Your task to perform on an android device: stop showing notifications on the lock screen Image 0: 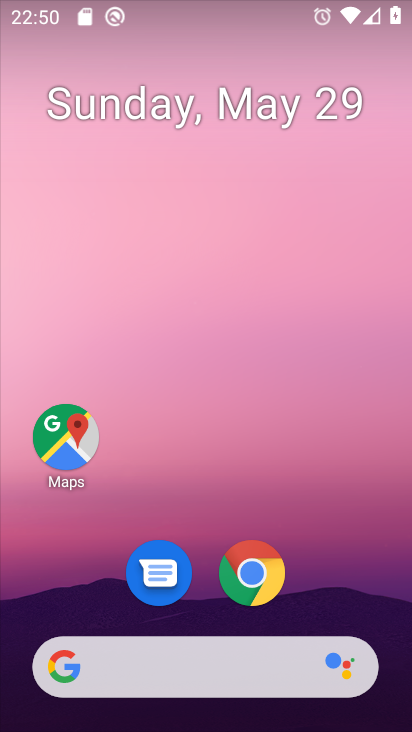
Step 0: drag from (218, 492) to (242, 20)
Your task to perform on an android device: stop showing notifications on the lock screen Image 1: 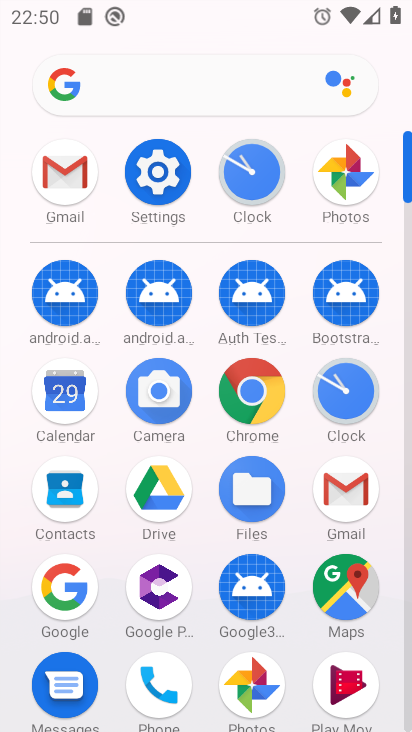
Step 1: click (164, 168)
Your task to perform on an android device: stop showing notifications on the lock screen Image 2: 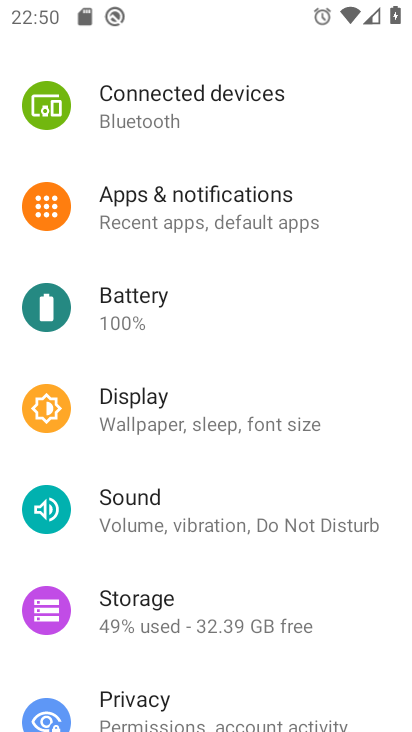
Step 2: click (244, 209)
Your task to perform on an android device: stop showing notifications on the lock screen Image 3: 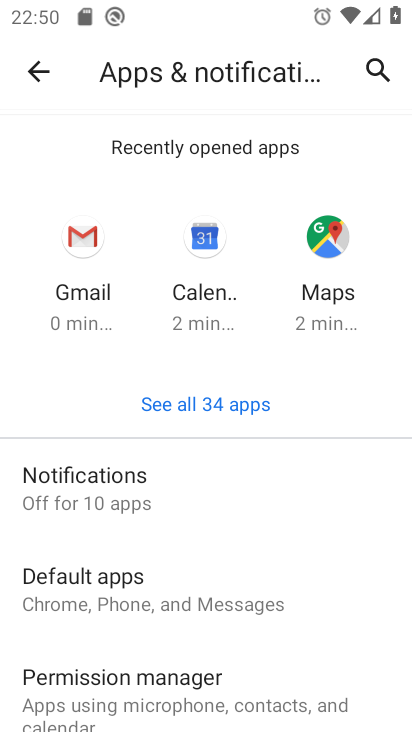
Step 3: click (195, 494)
Your task to perform on an android device: stop showing notifications on the lock screen Image 4: 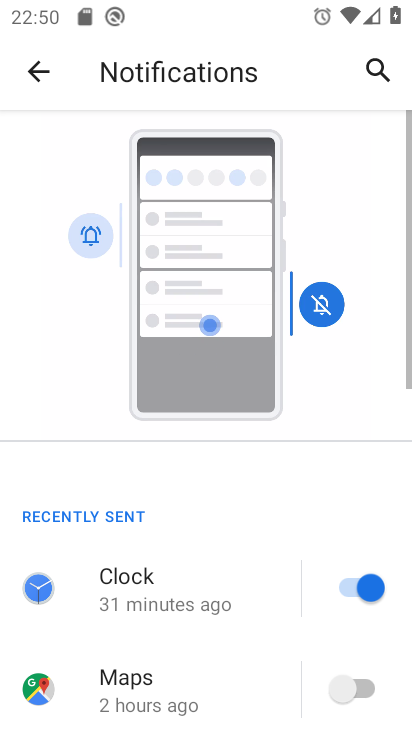
Step 4: task complete